Your task to perform on an android device: turn on priority inbox in the gmail app Image 0: 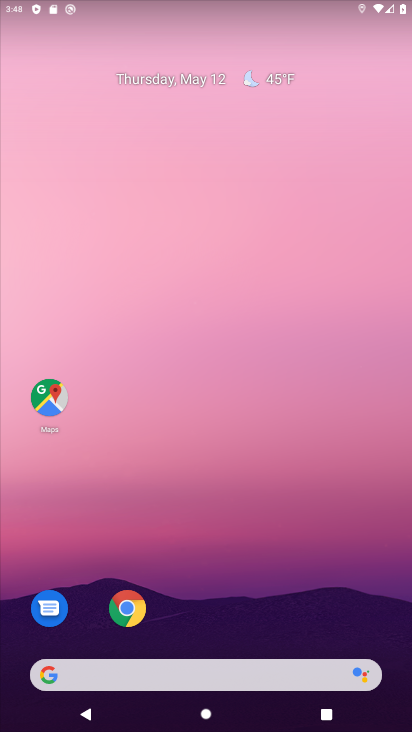
Step 0: drag from (225, 579) to (199, 53)
Your task to perform on an android device: turn on priority inbox in the gmail app Image 1: 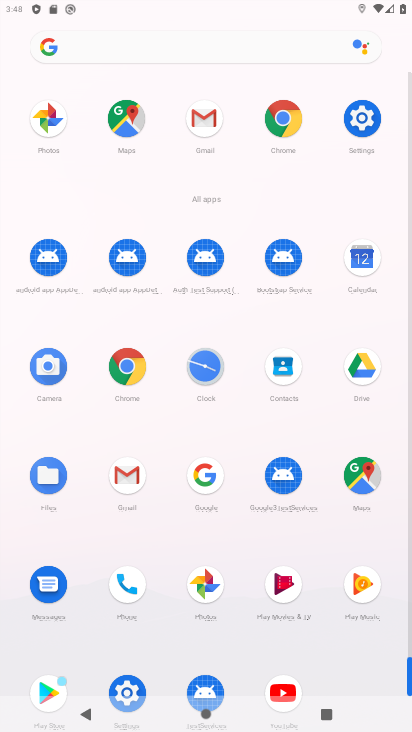
Step 1: click (116, 478)
Your task to perform on an android device: turn on priority inbox in the gmail app Image 2: 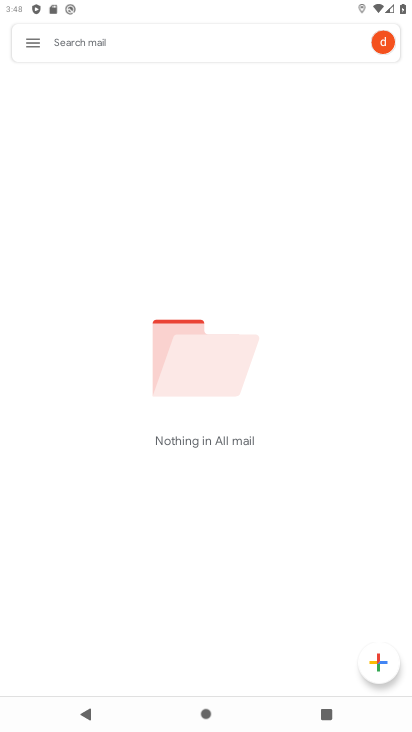
Step 2: click (28, 46)
Your task to perform on an android device: turn on priority inbox in the gmail app Image 3: 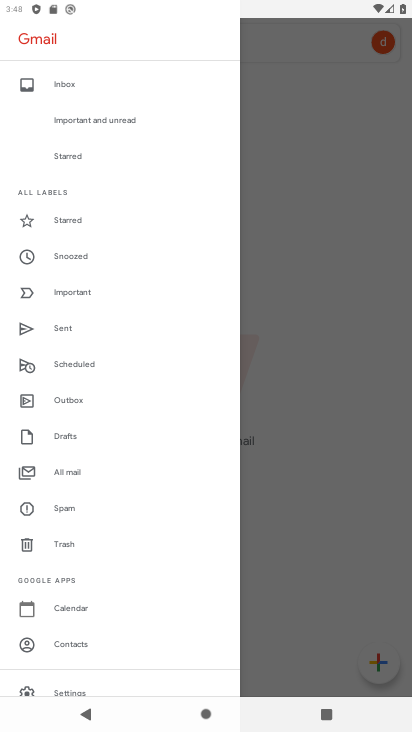
Step 3: drag from (115, 670) to (108, 255)
Your task to perform on an android device: turn on priority inbox in the gmail app Image 4: 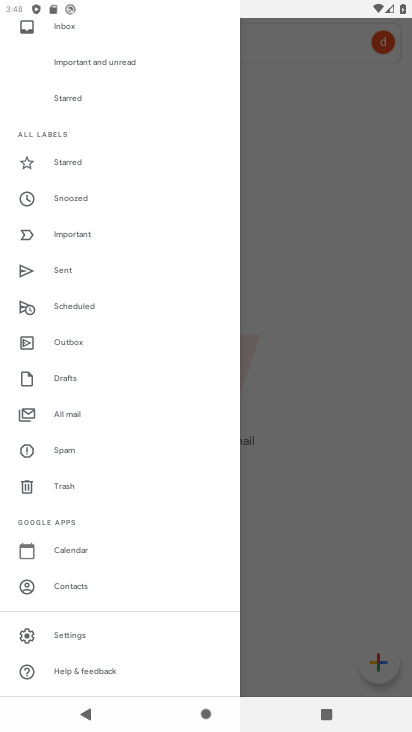
Step 4: click (71, 634)
Your task to perform on an android device: turn on priority inbox in the gmail app Image 5: 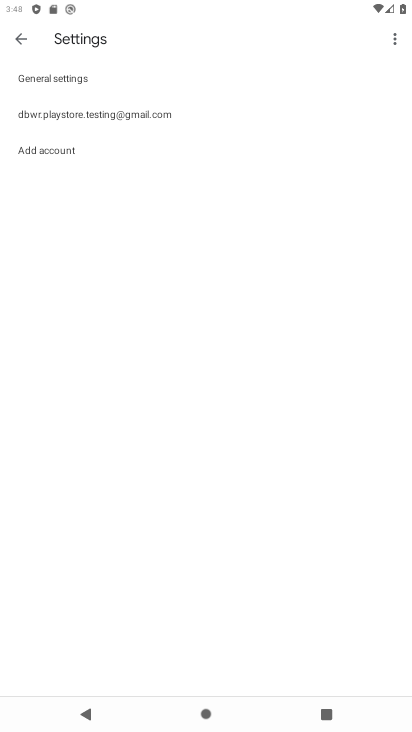
Step 5: click (119, 115)
Your task to perform on an android device: turn on priority inbox in the gmail app Image 6: 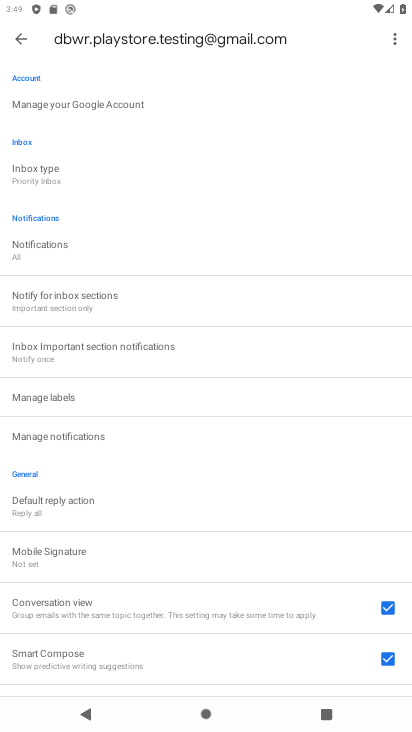
Step 6: click (35, 174)
Your task to perform on an android device: turn on priority inbox in the gmail app Image 7: 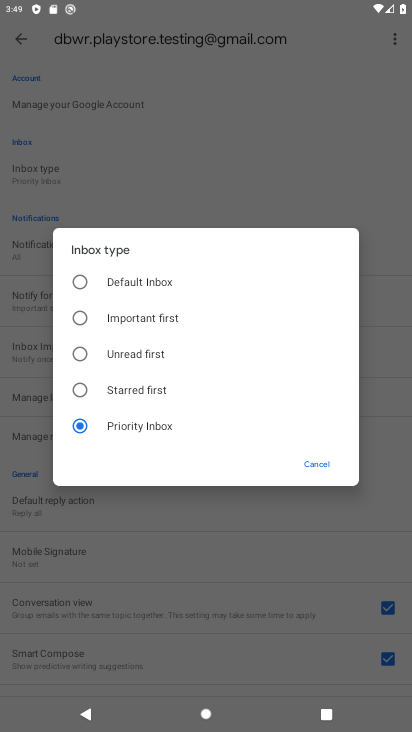
Step 7: click (147, 422)
Your task to perform on an android device: turn on priority inbox in the gmail app Image 8: 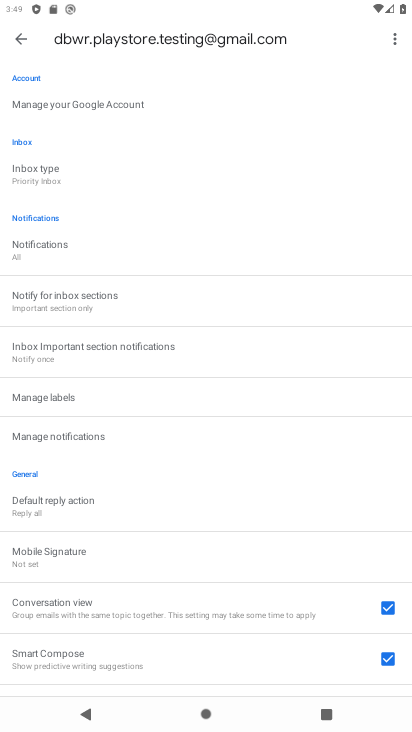
Step 8: task complete